Your task to perform on an android device: Open Chrome and go to settings Image 0: 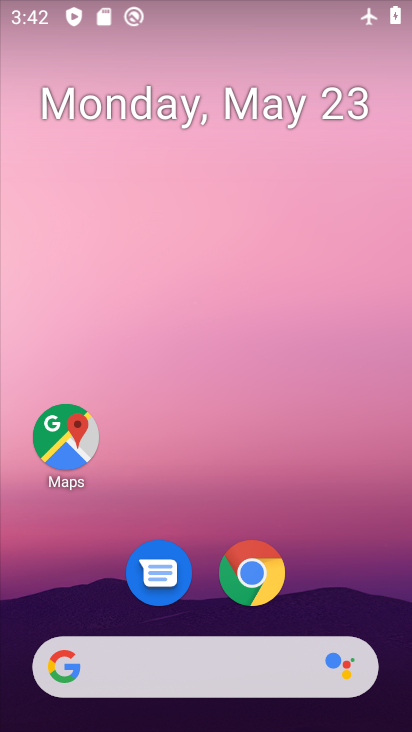
Step 0: click (252, 578)
Your task to perform on an android device: Open Chrome and go to settings Image 1: 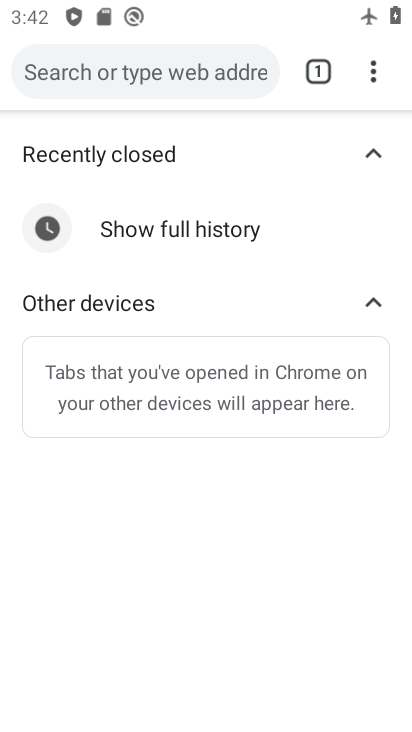
Step 1: click (375, 79)
Your task to perform on an android device: Open Chrome and go to settings Image 2: 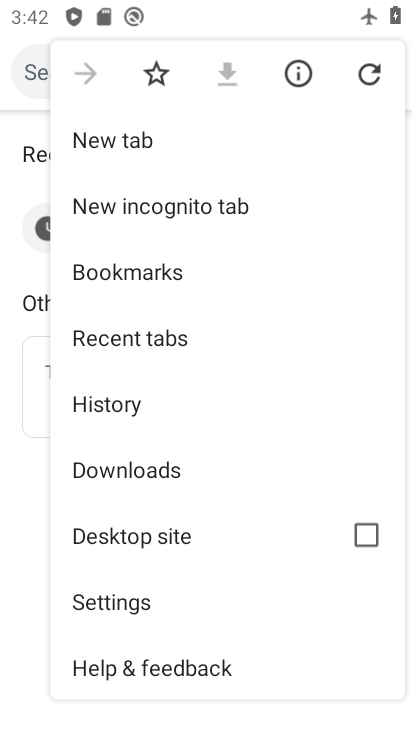
Step 2: click (106, 592)
Your task to perform on an android device: Open Chrome and go to settings Image 3: 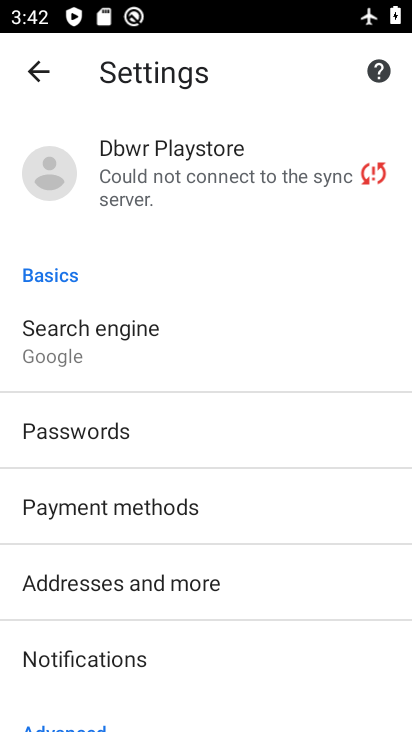
Step 3: task complete